Your task to perform on an android device: turn on priority inbox in the gmail app Image 0: 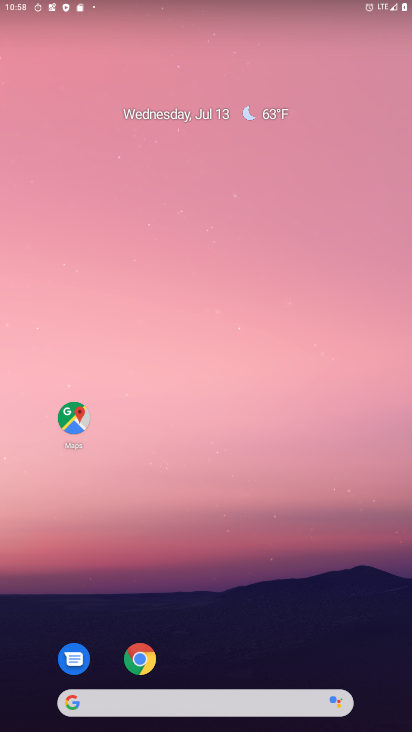
Step 0: drag from (297, 622) to (241, 50)
Your task to perform on an android device: turn on priority inbox in the gmail app Image 1: 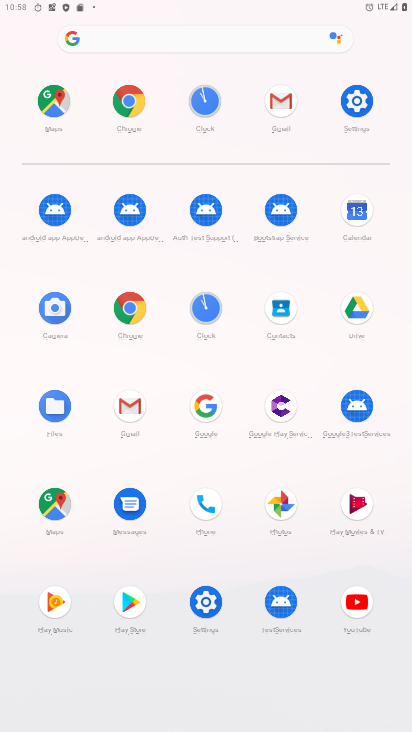
Step 1: click (283, 95)
Your task to perform on an android device: turn on priority inbox in the gmail app Image 2: 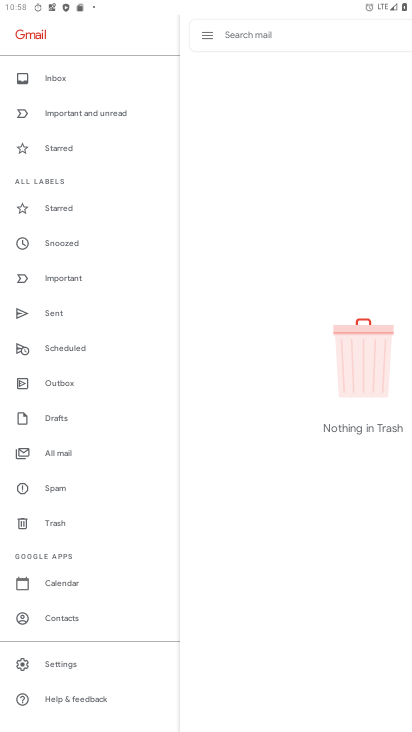
Step 2: drag from (69, 79) to (109, 478)
Your task to perform on an android device: turn on priority inbox in the gmail app Image 3: 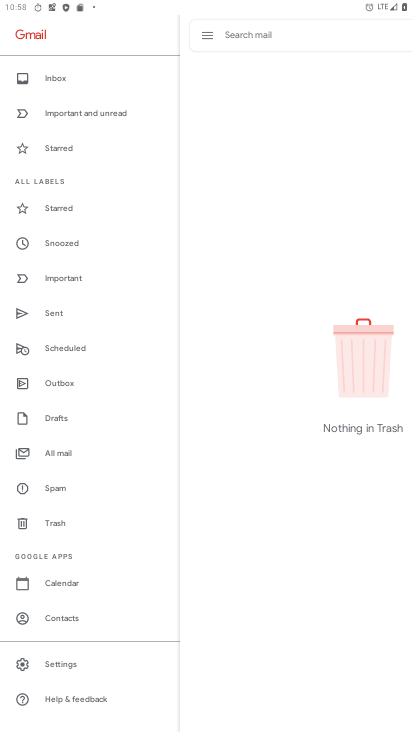
Step 3: click (77, 656)
Your task to perform on an android device: turn on priority inbox in the gmail app Image 4: 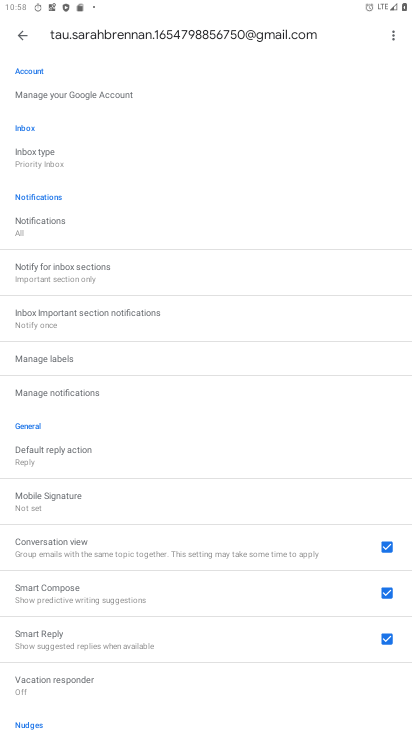
Step 4: click (21, 155)
Your task to perform on an android device: turn on priority inbox in the gmail app Image 5: 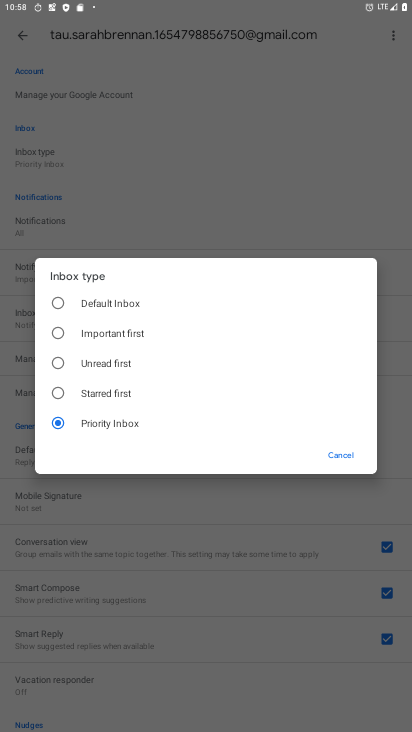
Step 5: task complete